Your task to perform on an android device: Search for Mexican restaurants on Maps Image 0: 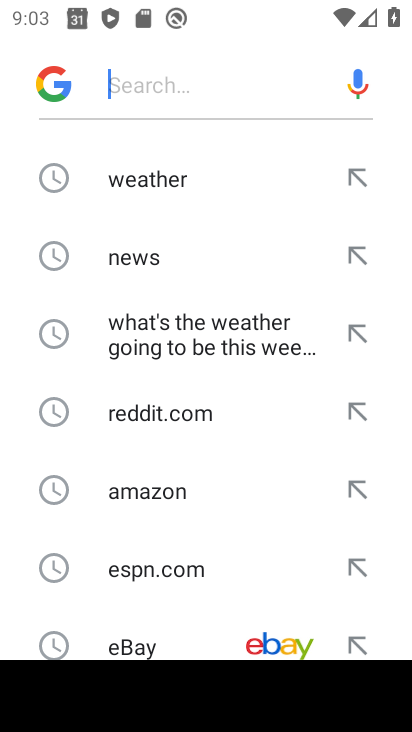
Step 0: press back button
Your task to perform on an android device: Search for Mexican restaurants on Maps Image 1: 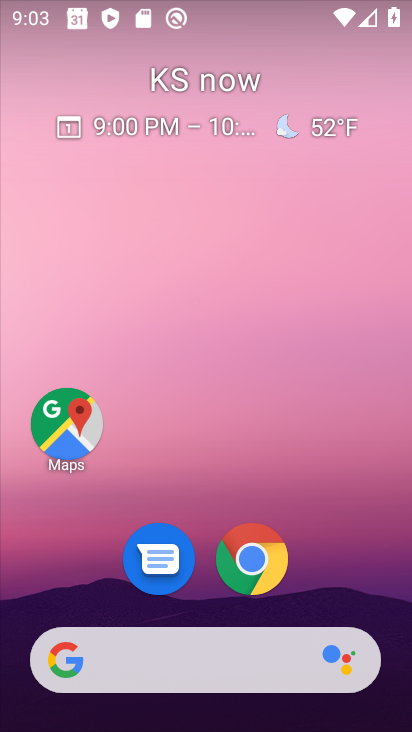
Step 1: drag from (344, 592) to (342, 82)
Your task to perform on an android device: Search for Mexican restaurants on Maps Image 2: 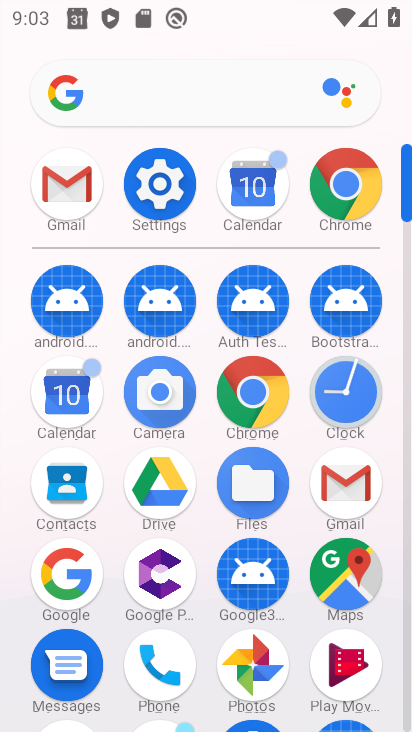
Step 2: drag from (7, 567) to (0, 253)
Your task to perform on an android device: Search for Mexican restaurants on Maps Image 3: 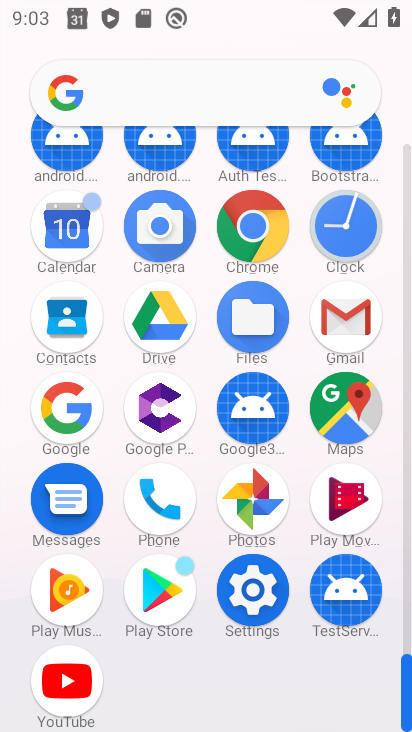
Step 3: click (350, 402)
Your task to perform on an android device: Search for Mexican restaurants on Maps Image 4: 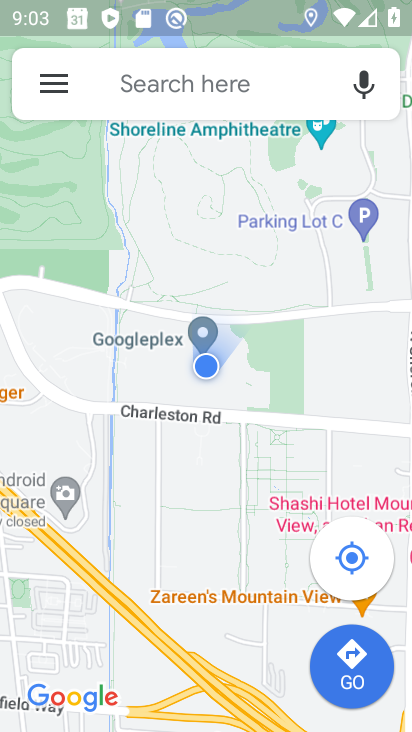
Step 4: click (279, 78)
Your task to perform on an android device: Search for Mexican restaurants on Maps Image 5: 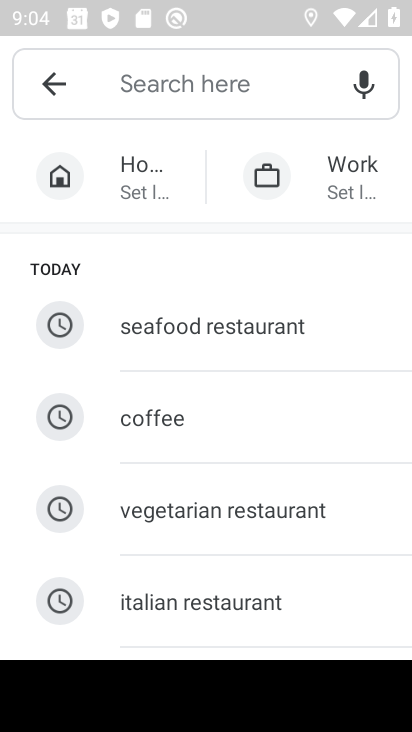
Step 5: drag from (274, 569) to (306, 356)
Your task to perform on an android device: Search for Mexican restaurants on Maps Image 6: 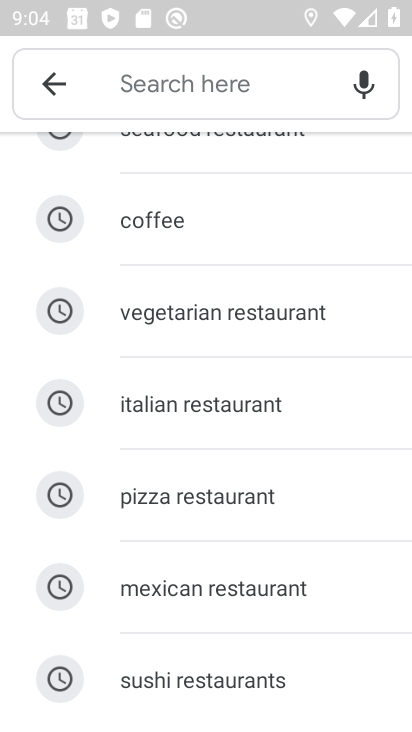
Step 6: click (239, 594)
Your task to perform on an android device: Search for Mexican restaurants on Maps Image 7: 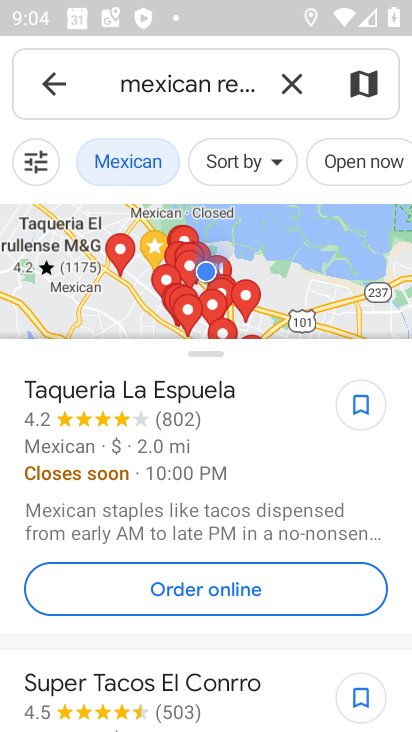
Step 7: task complete